Your task to perform on an android device: Open settings Image 0: 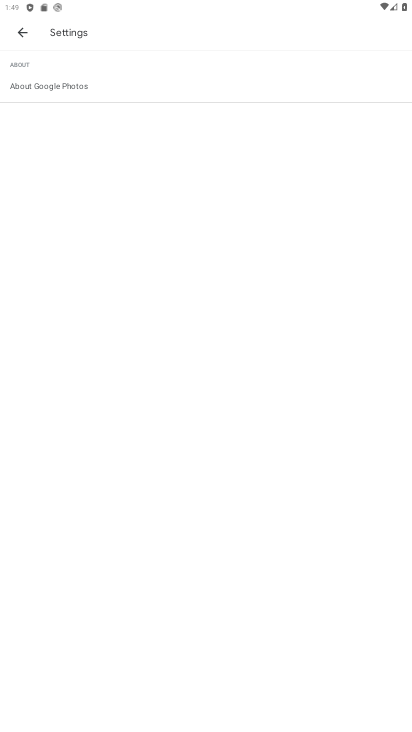
Step 0: drag from (264, 613) to (85, 3)
Your task to perform on an android device: Open settings Image 1: 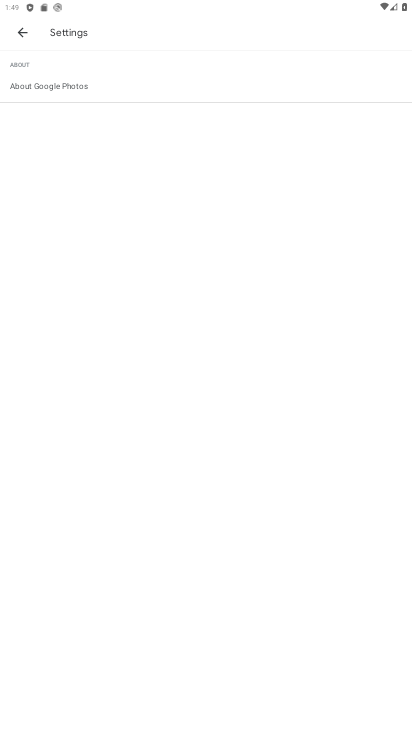
Step 1: press home button
Your task to perform on an android device: Open settings Image 2: 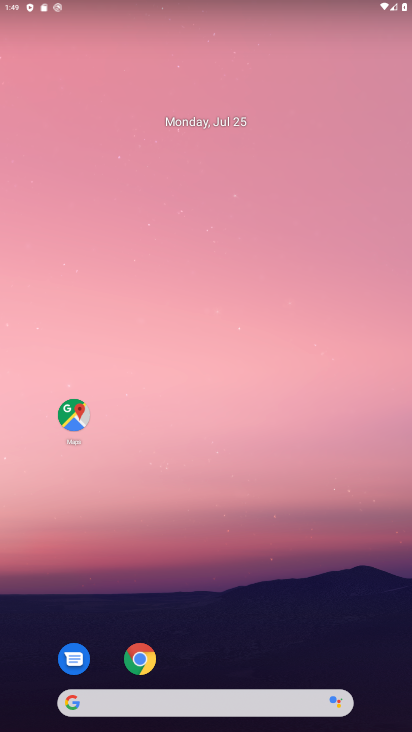
Step 2: drag from (237, 604) to (36, 27)
Your task to perform on an android device: Open settings Image 3: 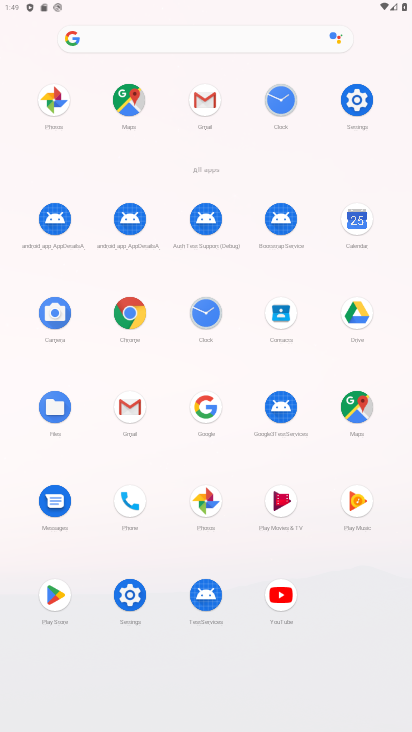
Step 3: click (137, 603)
Your task to perform on an android device: Open settings Image 4: 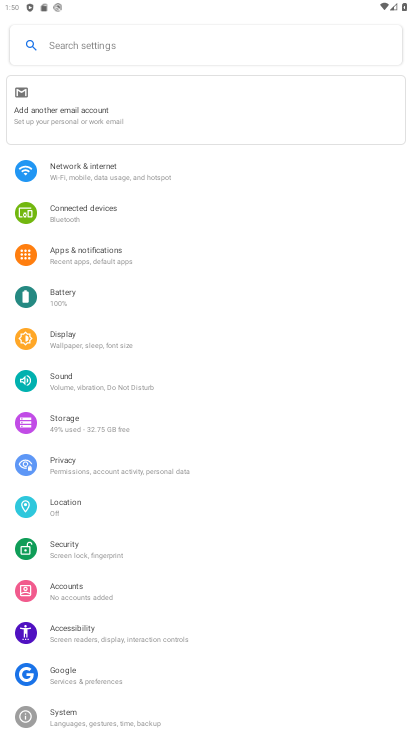
Step 4: task complete